Your task to perform on an android device: Open CNN.com Image 0: 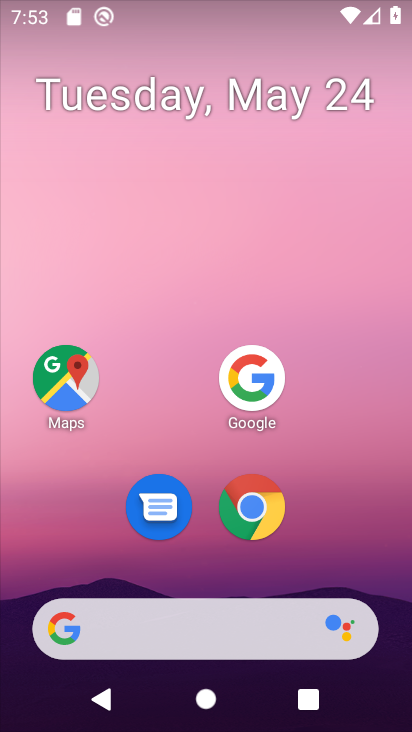
Step 0: click (260, 508)
Your task to perform on an android device: Open CNN.com Image 1: 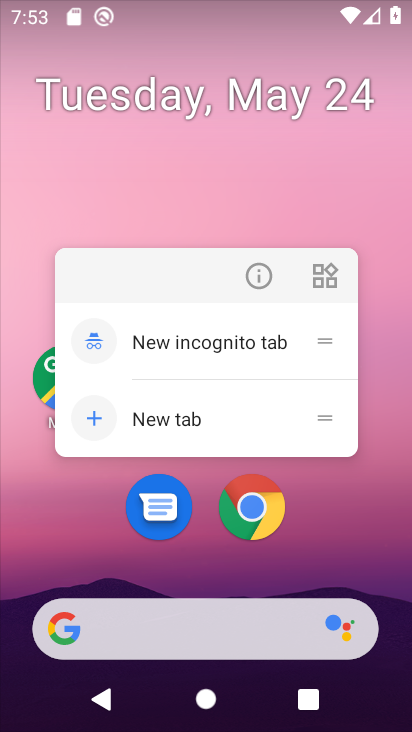
Step 1: click (257, 512)
Your task to perform on an android device: Open CNN.com Image 2: 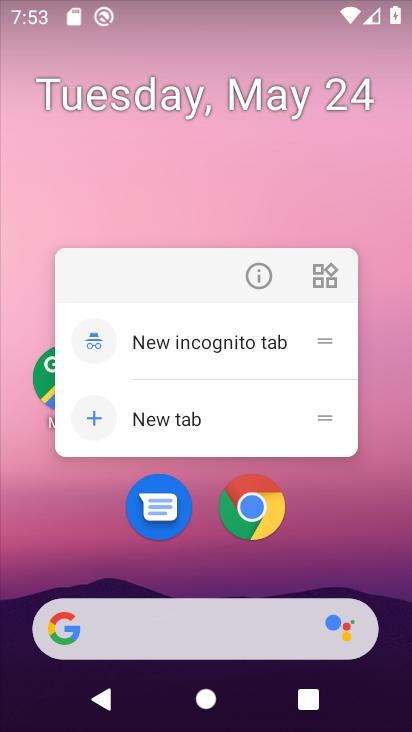
Step 2: click (252, 517)
Your task to perform on an android device: Open CNN.com Image 3: 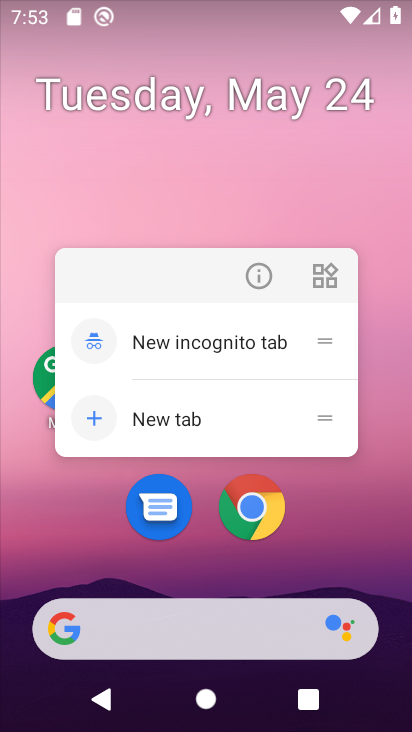
Step 3: click (249, 513)
Your task to perform on an android device: Open CNN.com Image 4: 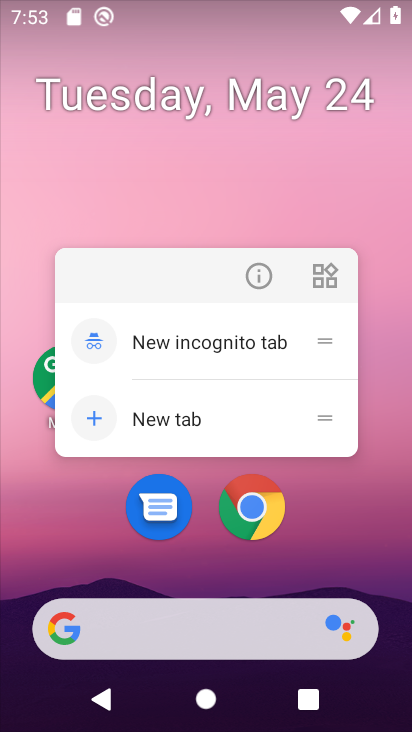
Step 4: click (252, 524)
Your task to perform on an android device: Open CNN.com Image 5: 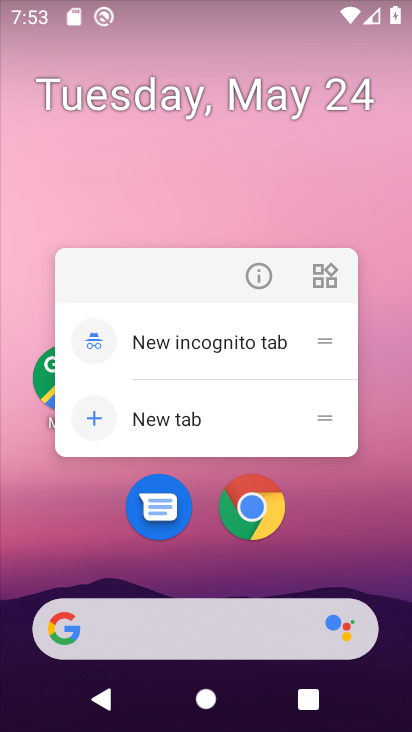
Step 5: click (263, 509)
Your task to perform on an android device: Open CNN.com Image 6: 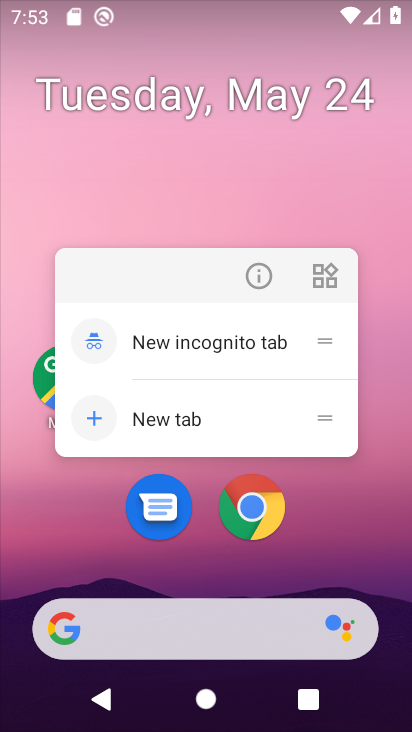
Step 6: click (255, 518)
Your task to perform on an android device: Open CNN.com Image 7: 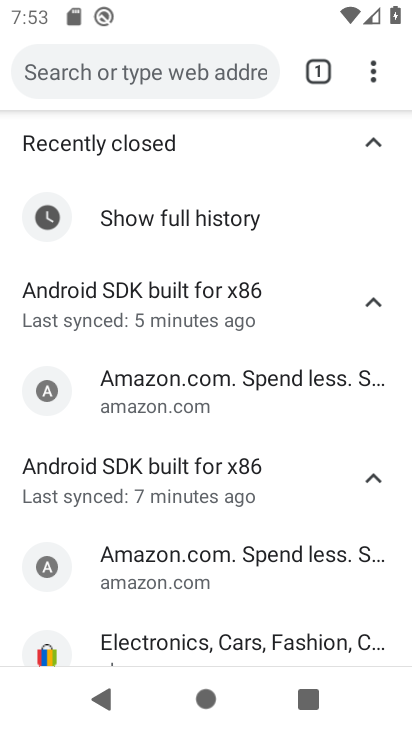
Step 7: drag from (374, 75) to (250, 144)
Your task to perform on an android device: Open CNN.com Image 8: 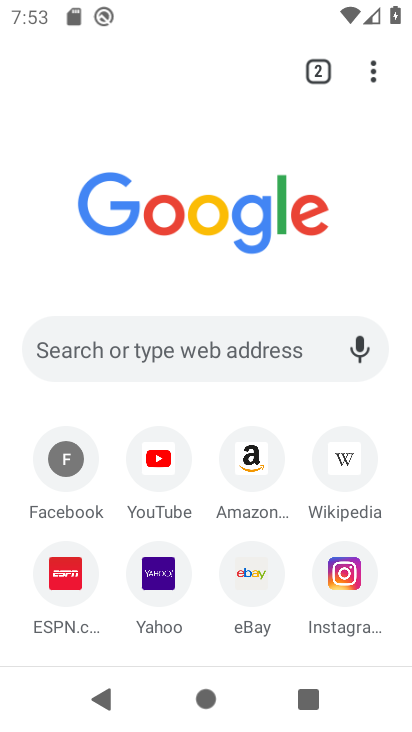
Step 8: click (187, 333)
Your task to perform on an android device: Open CNN.com Image 9: 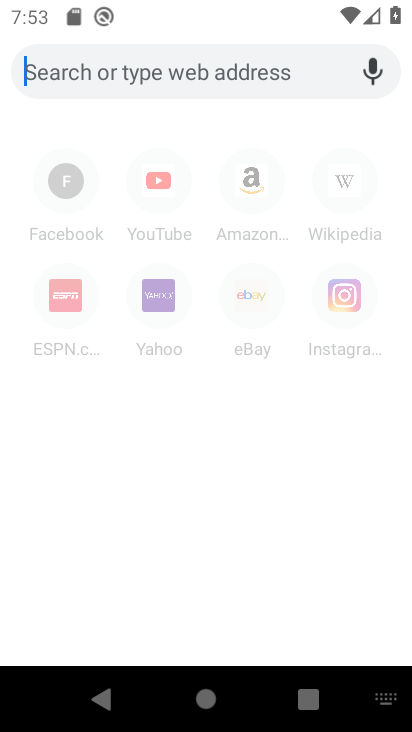
Step 9: type "cnn.com"
Your task to perform on an android device: Open CNN.com Image 10: 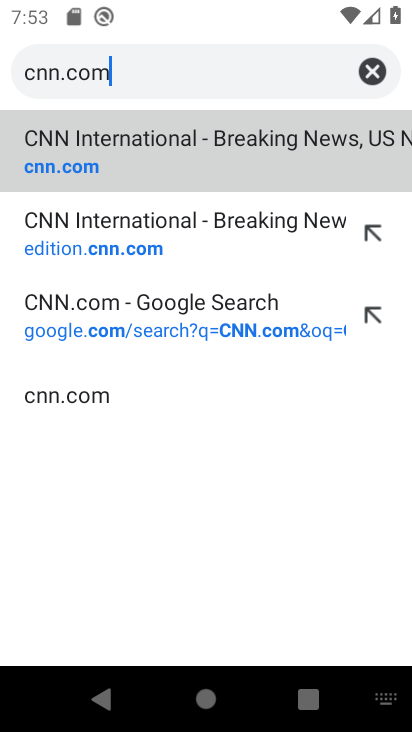
Step 10: click (200, 156)
Your task to perform on an android device: Open CNN.com Image 11: 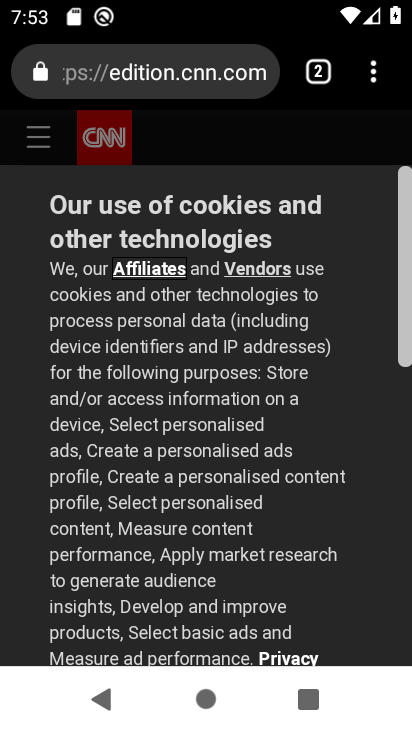
Step 11: drag from (207, 576) to (360, 175)
Your task to perform on an android device: Open CNN.com Image 12: 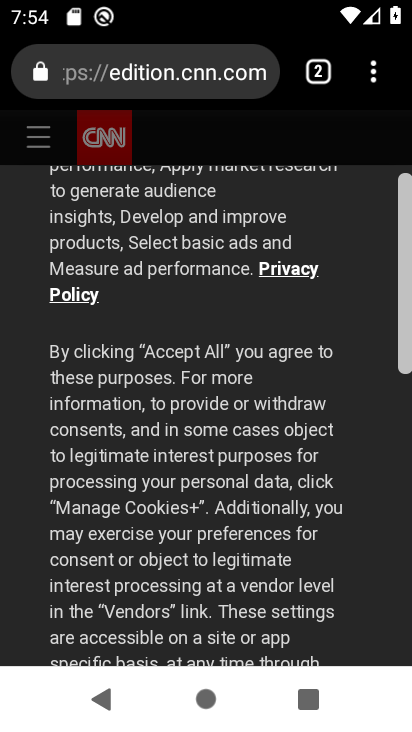
Step 12: drag from (215, 588) to (357, 209)
Your task to perform on an android device: Open CNN.com Image 13: 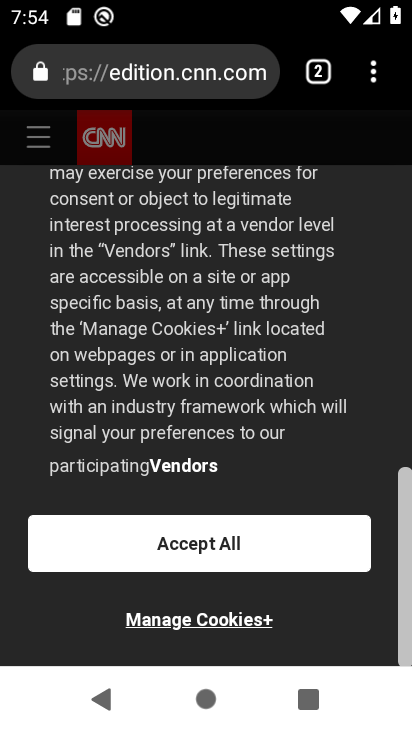
Step 13: click (231, 546)
Your task to perform on an android device: Open CNN.com Image 14: 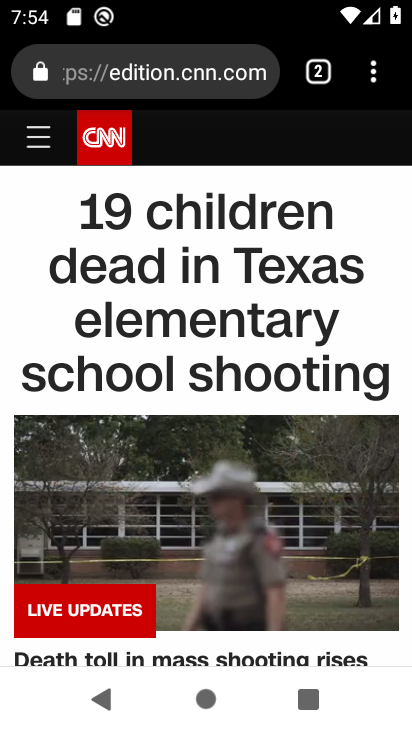
Step 14: task complete